Your task to perform on an android device: Go to display settings Image 0: 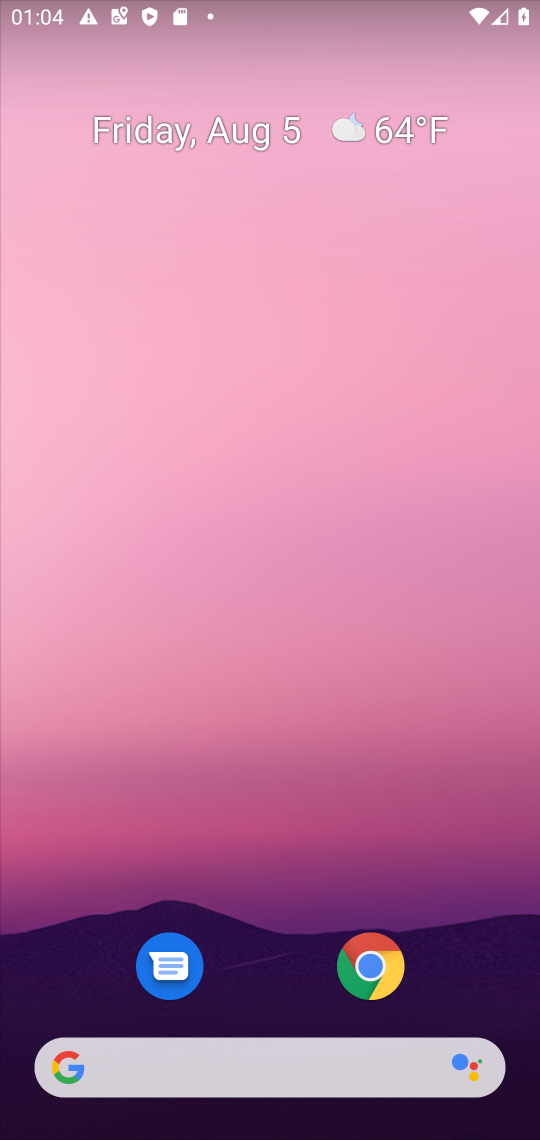
Step 0: drag from (280, 902) to (362, 25)
Your task to perform on an android device: Go to display settings Image 1: 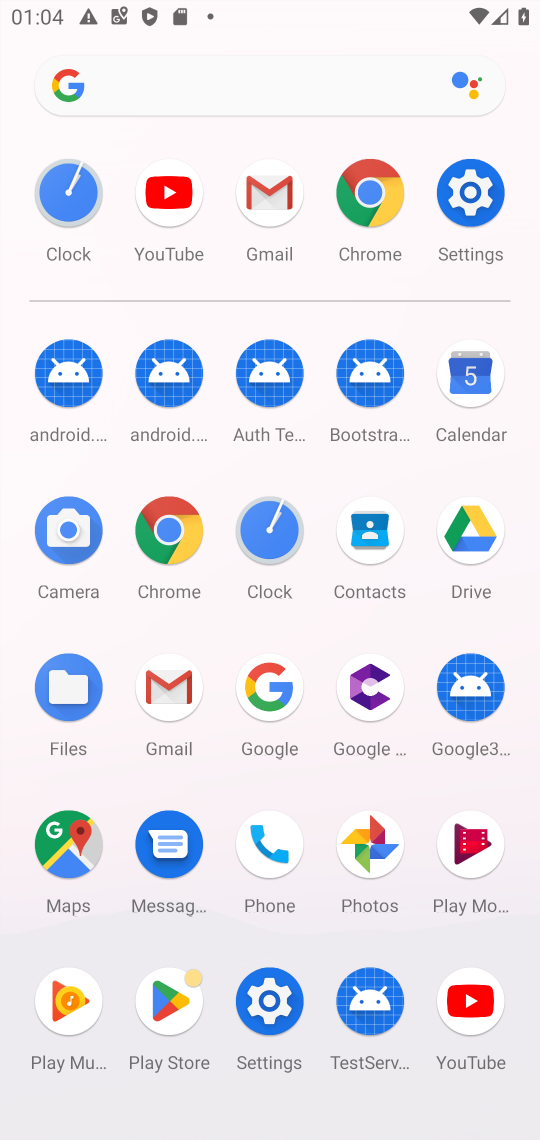
Step 1: click (457, 181)
Your task to perform on an android device: Go to display settings Image 2: 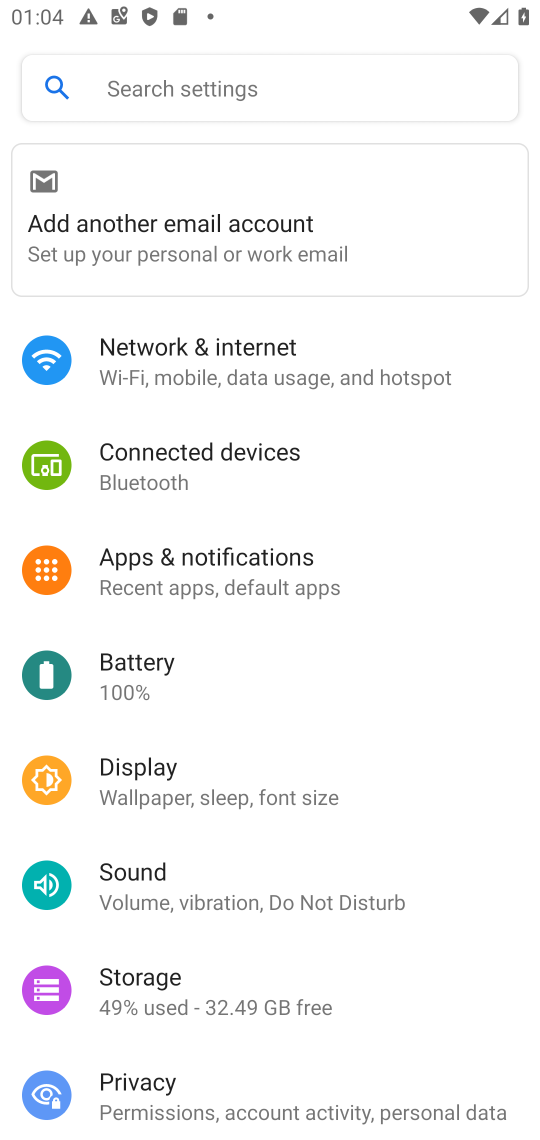
Step 2: click (180, 789)
Your task to perform on an android device: Go to display settings Image 3: 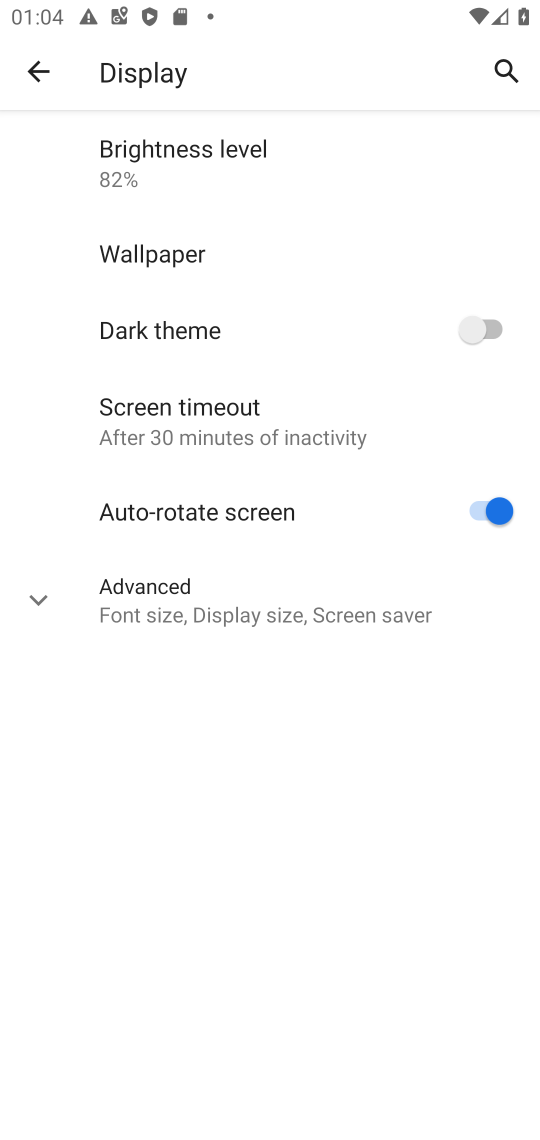
Step 3: task complete